Your task to perform on an android device: open chrome and create a bookmark for the current page Image 0: 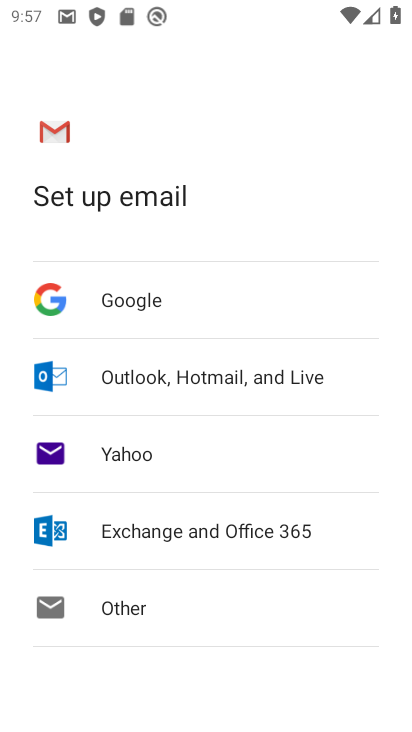
Step 0: press home button
Your task to perform on an android device: open chrome and create a bookmark for the current page Image 1: 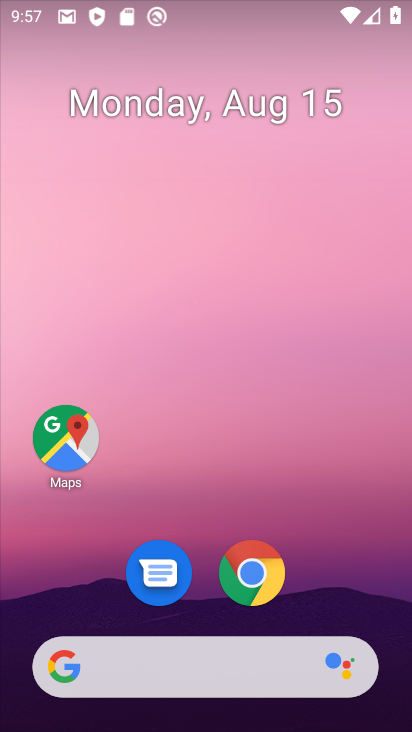
Step 1: click (255, 574)
Your task to perform on an android device: open chrome and create a bookmark for the current page Image 2: 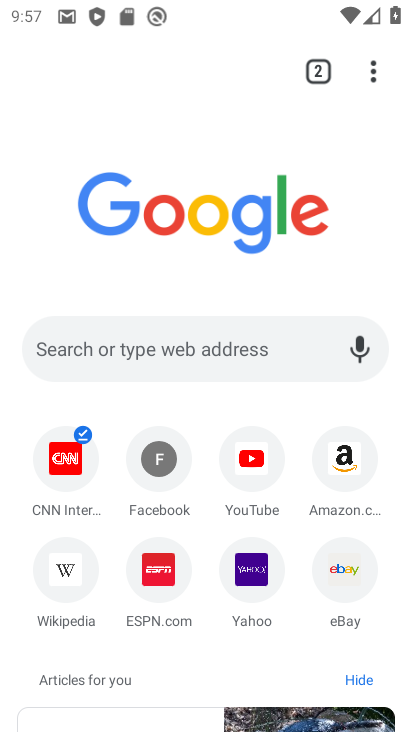
Step 2: click (372, 73)
Your task to perform on an android device: open chrome and create a bookmark for the current page Image 3: 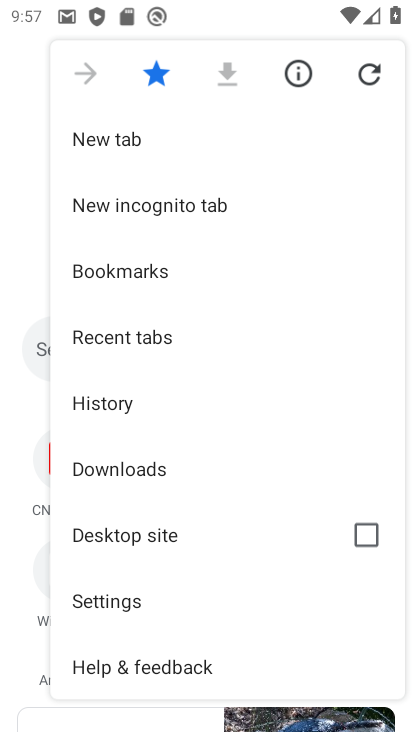
Step 3: task complete